Your task to perform on an android device: Go to privacy settings Image 0: 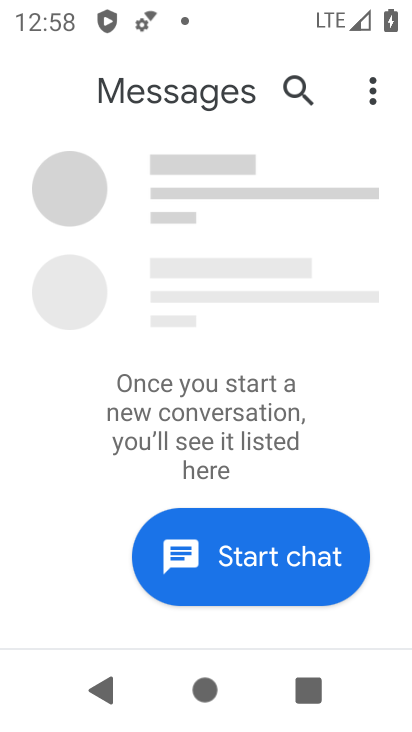
Step 0: press back button
Your task to perform on an android device: Go to privacy settings Image 1: 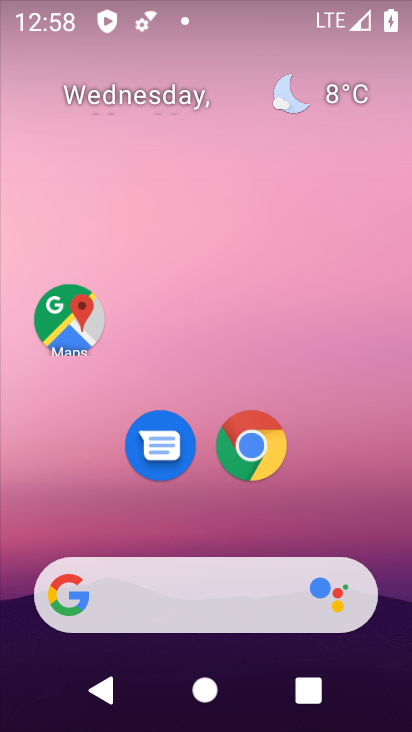
Step 1: click (267, 454)
Your task to perform on an android device: Go to privacy settings Image 2: 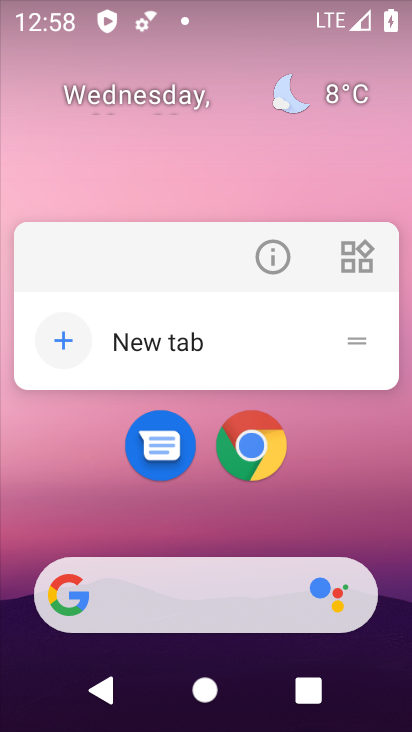
Step 2: click (265, 435)
Your task to perform on an android device: Go to privacy settings Image 3: 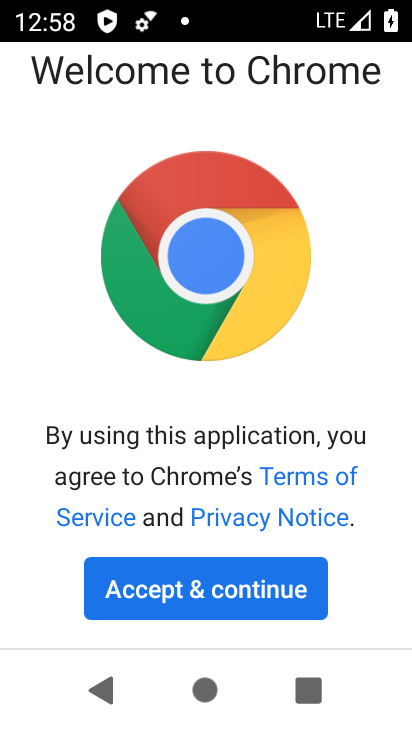
Step 3: click (267, 608)
Your task to perform on an android device: Go to privacy settings Image 4: 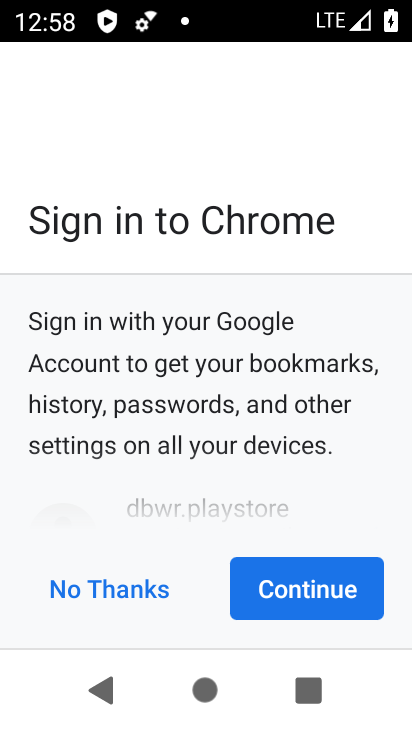
Step 4: click (276, 608)
Your task to perform on an android device: Go to privacy settings Image 5: 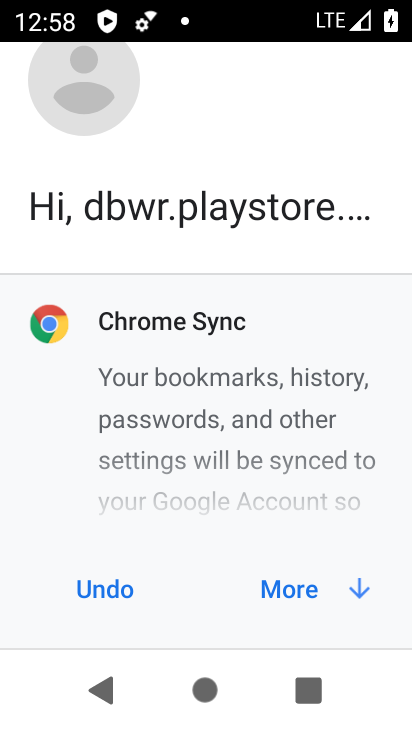
Step 5: click (291, 594)
Your task to perform on an android device: Go to privacy settings Image 6: 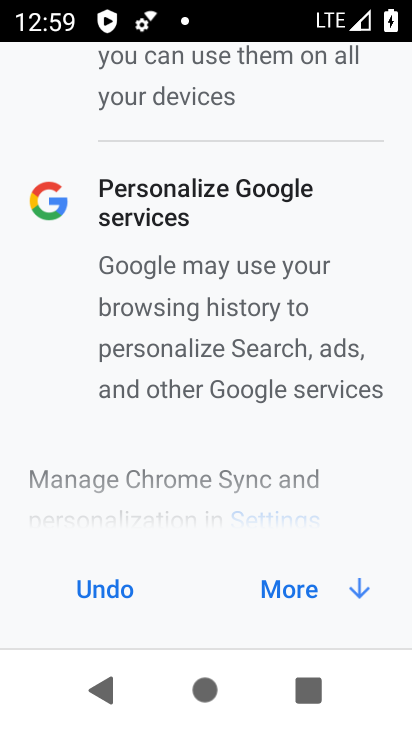
Step 6: click (292, 594)
Your task to perform on an android device: Go to privacy settings Image 7: 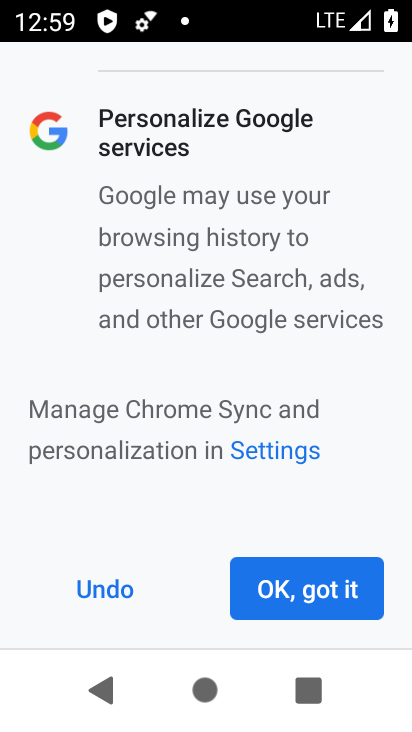
Step 7: click (293, 594)
Your task to perform on an android device: Go to privacy settings Image 8: 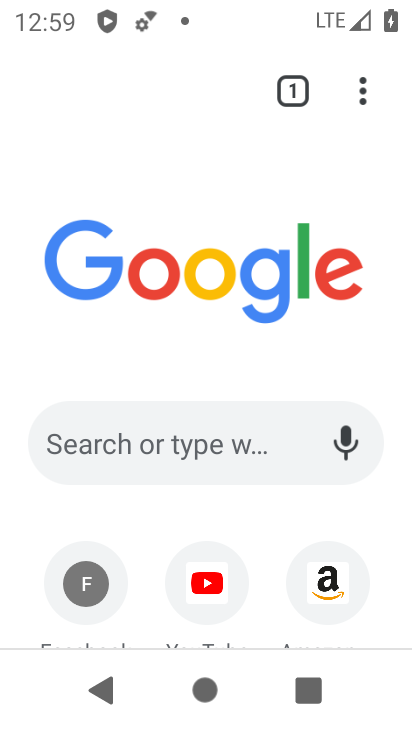
Step 8: drag from (377, 114) to (300, 487)
Your task to perform on an android device: Go to privacy settings Image 9: 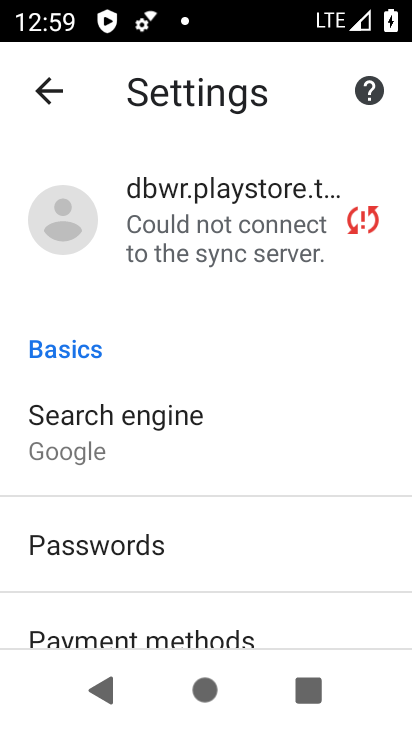
Step 9: drag from (185, 616) to (315, 236)
Your task to perform on an android device: Go to privacy settings Image 10: 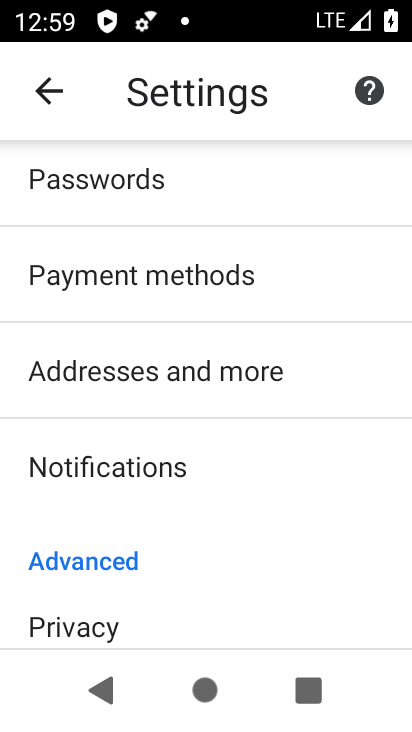
Step 10: click (152, 620)
Your task to perform on an android device: Go to privacy settings Image 11: 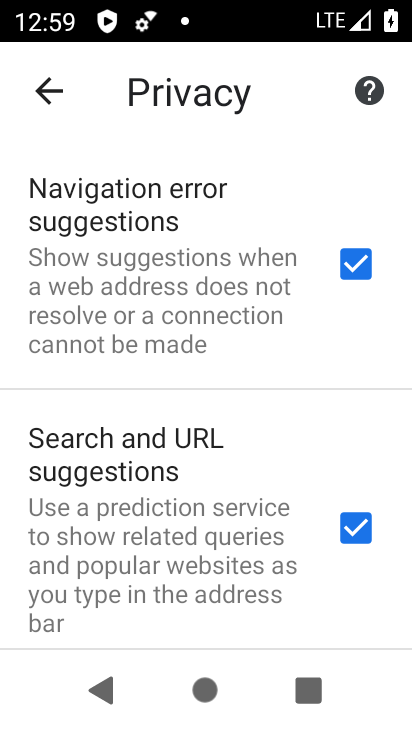
Step 11: task complete